Your task to perform on an android device: turn off improve location accuracy Image 0: 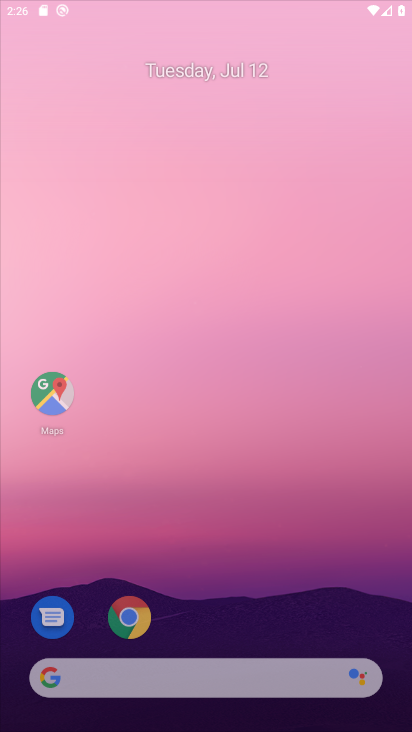
Step 0: drag from (201, 637) to (263, 142)
Your task to perform on an android device: turn off improve location accuracy Image 1: 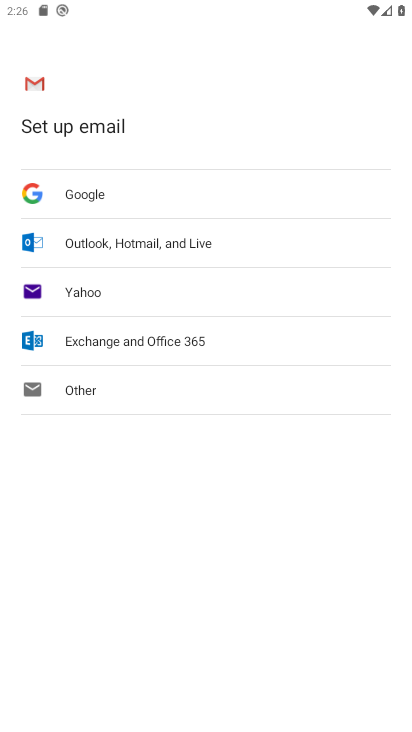
Step 1: press home button
Your task to perform on an android device: turn off improve location accuracy Image 2: 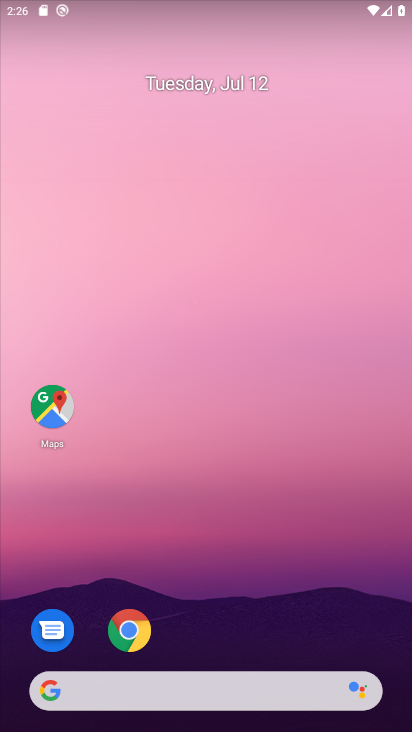
Step 2: drag from (217, 648) to (233, 146)
Your task to perform on an android device: turn off improve location accuracy Image 3: 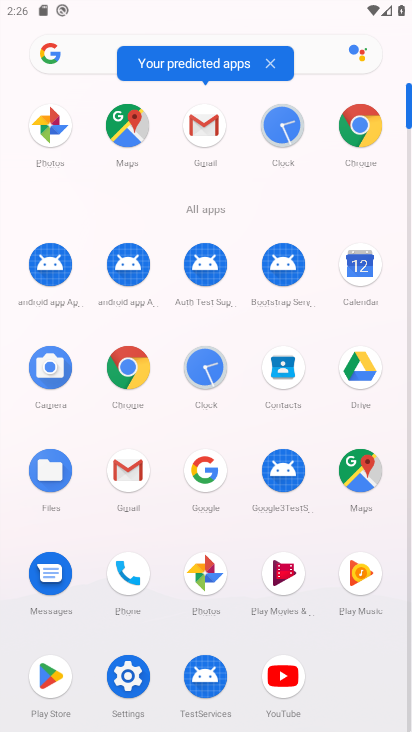
Step 3: click (124, 671)
Your task to perform on an android device: turn off improve location accuracy Image 4: 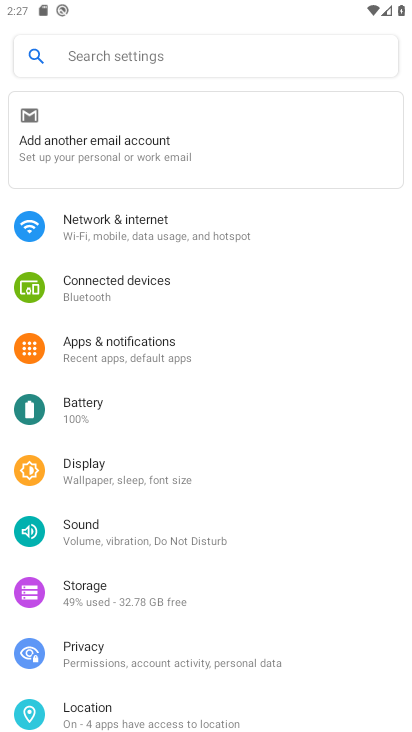
Step 4: click (116, 708)
Your task to perform on an android device: turn off improve location accuracy Image 5: 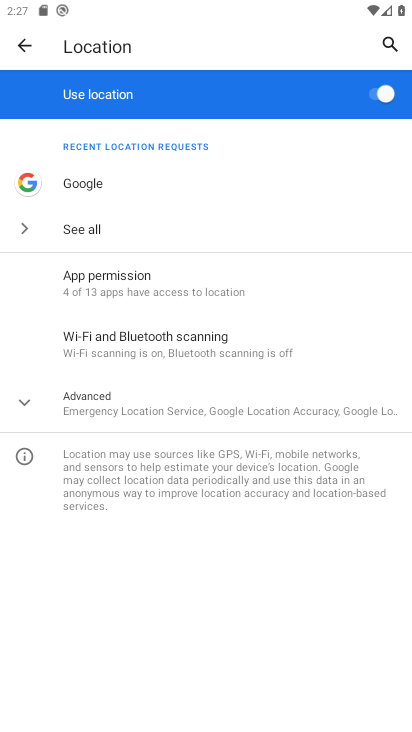
Step 5: click (33, 405)
Your task to perform on an android device: turn off improve location accuracy Image 6: 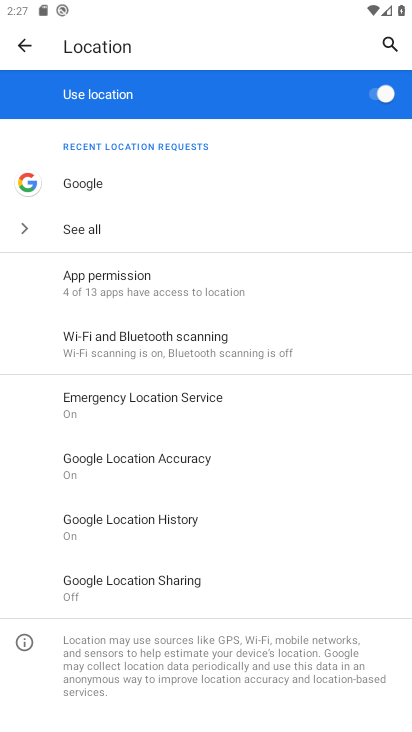
Step 6: click (138, 467)
Your task to perform on an android device: turn off improve location accuracy Image 7: 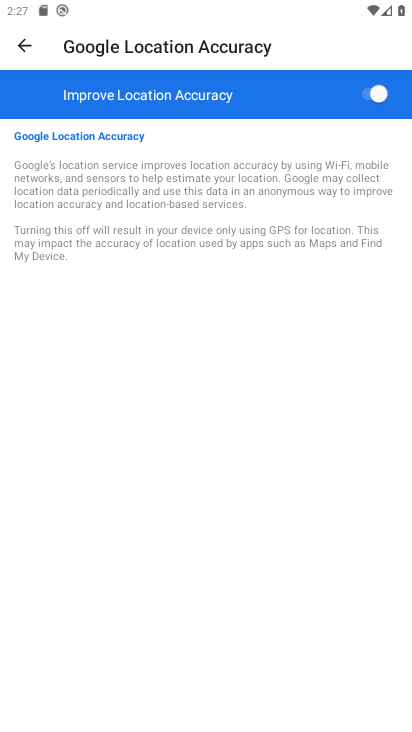
Step 7: click (363, 92)
Your task to perform on an android device: turn off improve location accuracy Image 8: 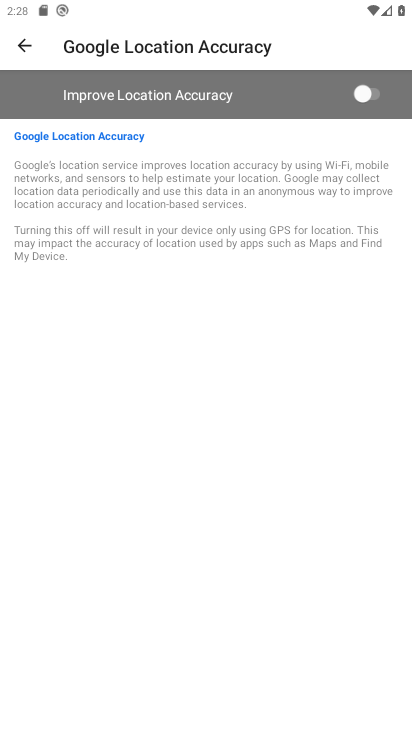
Step 8: task complete